Your task to perform on an android device: turn off improve location accuracy Image 0: 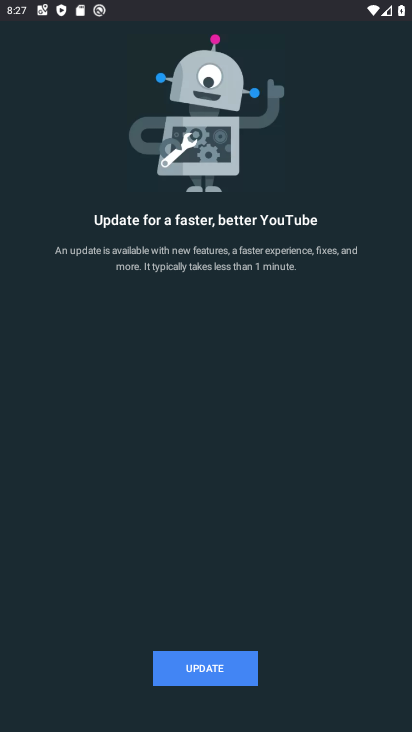
Step 0: press home button
Your task to perform on an android device: turn off improve location accuracy Image 1: 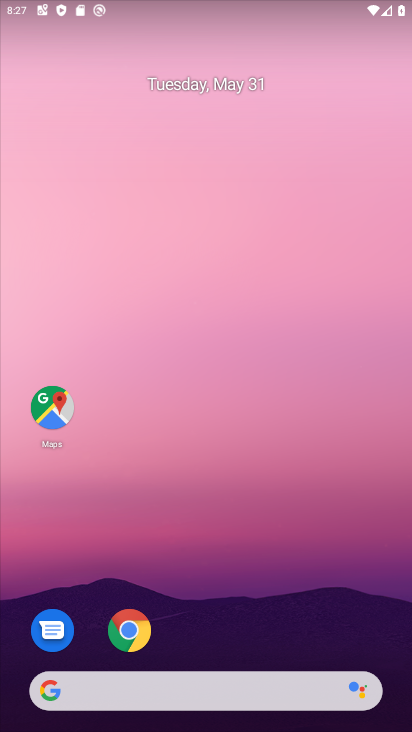
Step 1: drag from (210, 663) to (183, 307)
Your task to perform on an android device: turn off improve location accuracy Image 2: 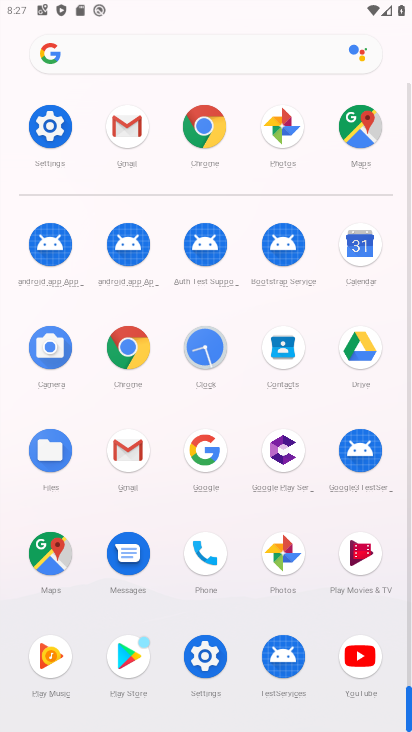
Step 2: click (52, 128)
Your task to perform on an android device: turn off improve location accuracy Image 3: 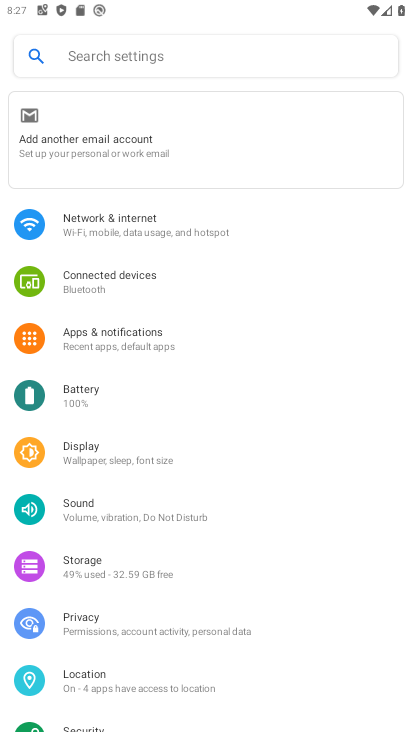
Step 3: click (115, 670)
Your task to perform on an android device: turn off improve location accuracy Image 4: 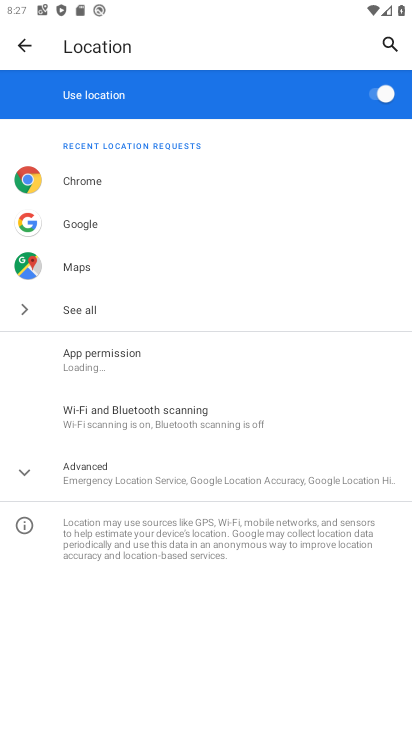
Step 4: click (117, 485)
Your task to perform on an android device: turn off improve location accuracy Image 5: 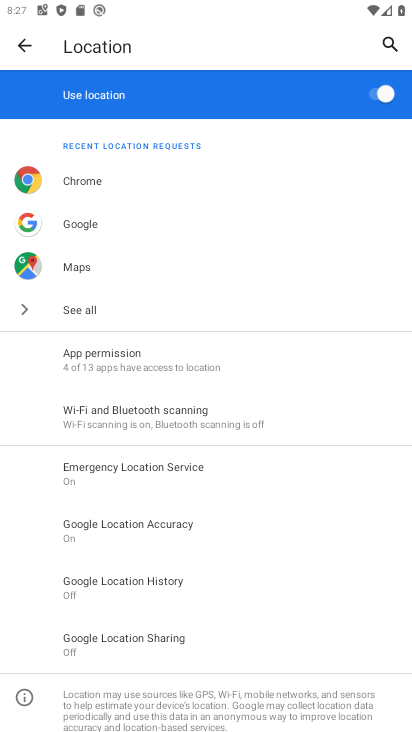
Step 5: click (109, 523)
Your task to perform on an android device: turn off improve location accuracy Image 6: 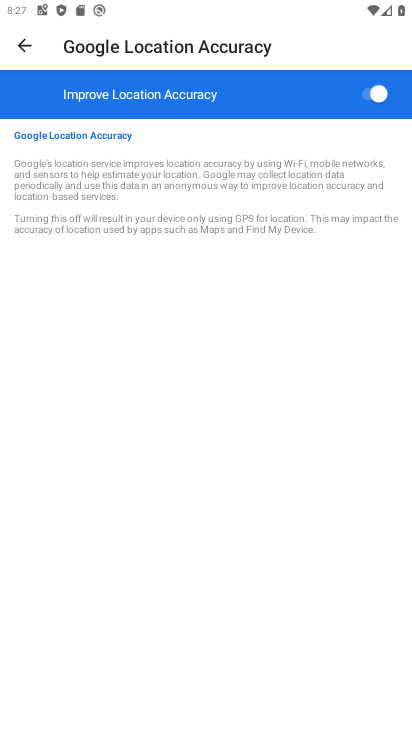
Step 6: click (382, 84)
Your task to perform on an android device: turn off improve location accuracy Image 7: 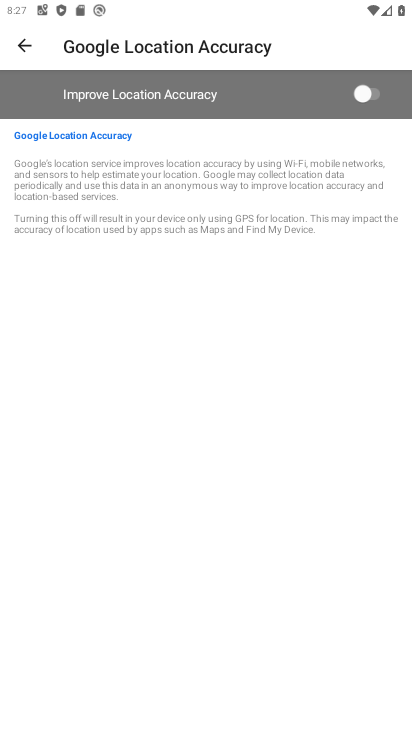
Step 7: task complete